Your task to perform on an android device: empty trash in google photos Image 0: 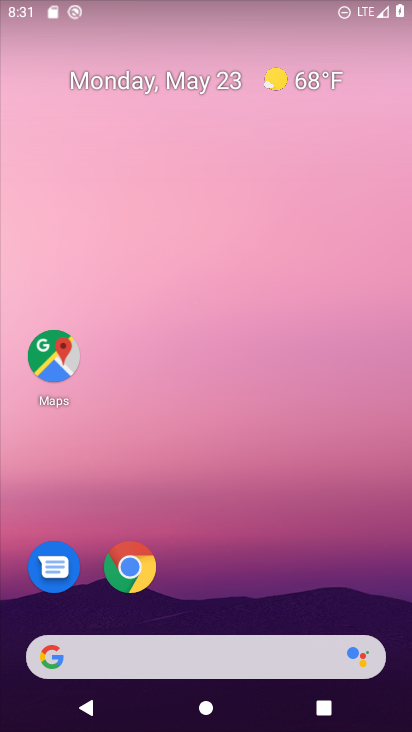
Step 0: drag from (205, 499) to (299, 57)
Your task to perform on an android device: empty trash in google photos Image 1: 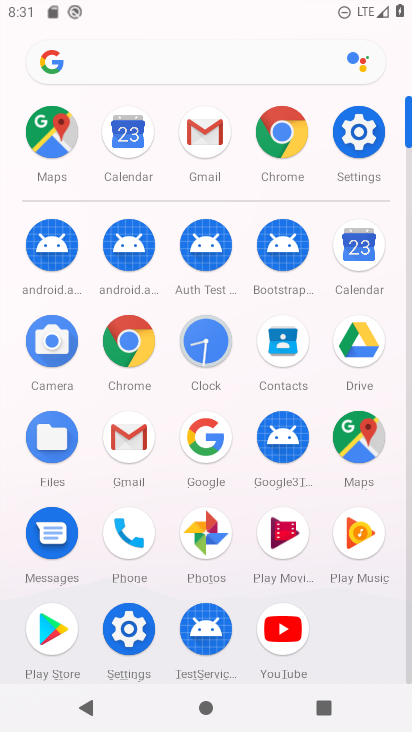
Step 1: click (200, 514)
Your task to perform on an android device: empty trash in google photos Image 2: 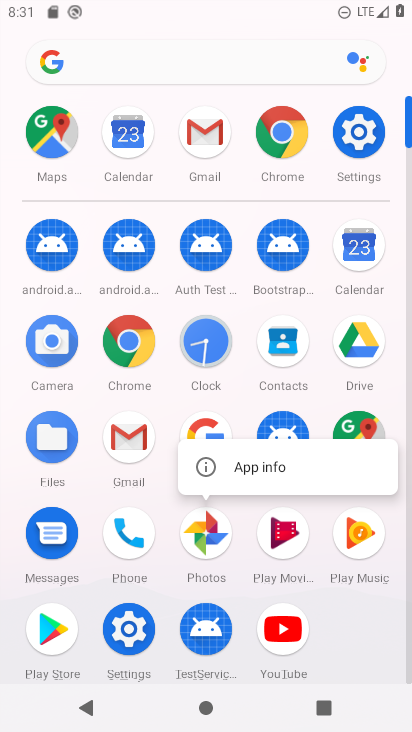
Step 2: click (231, 469)
Your task to perform on an android device: empty trash in google photos Image 3: 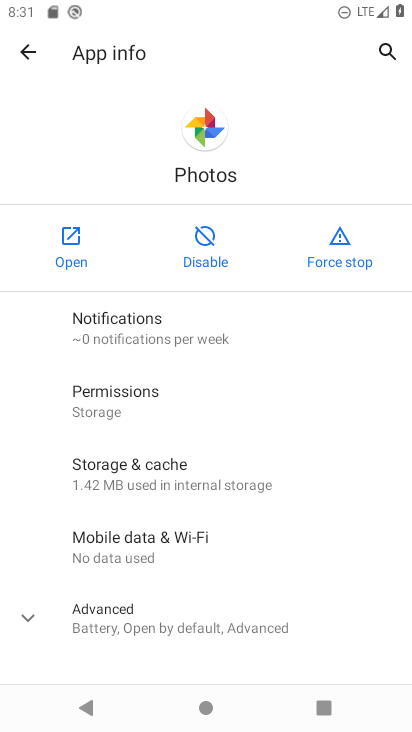
Step 3: click (64, 249)
Your task to perform on an android device: empty trash in google photos Image 4: 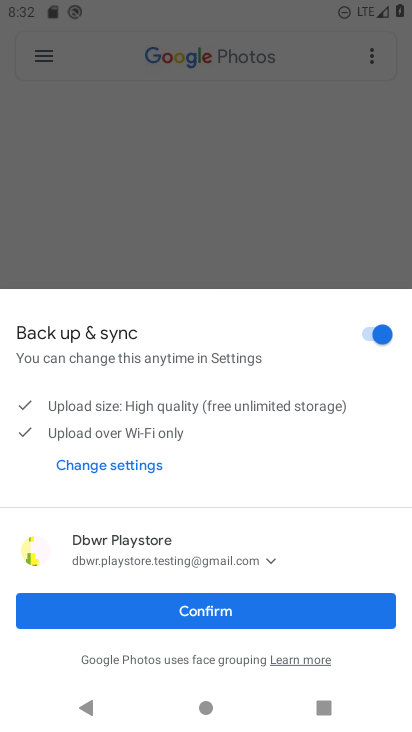
Step 4: drag from (307, 294) to (346, 42)
Your task to perform on an android device: empty trash in google photos Image 5: 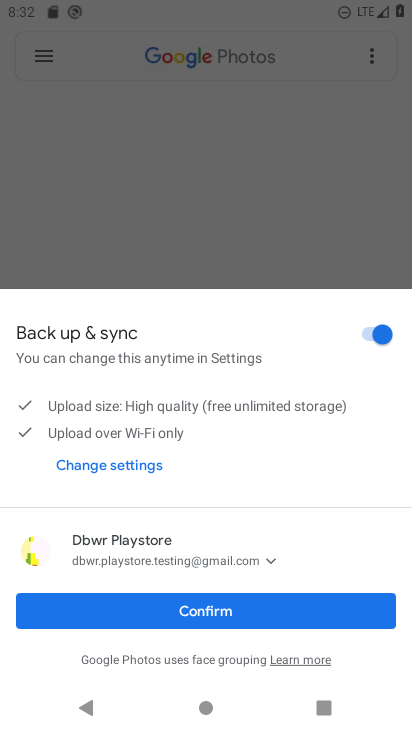
Step 5: click (278, 619)
Your task to perform on an android device: empty trash in google photos Image 6: 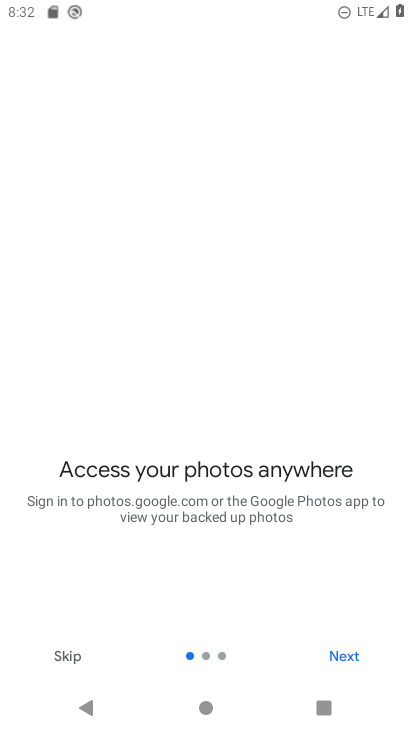
Step 6: click (39, 58)
Your task to perform on an android device: empty trash in google photos Image 7: 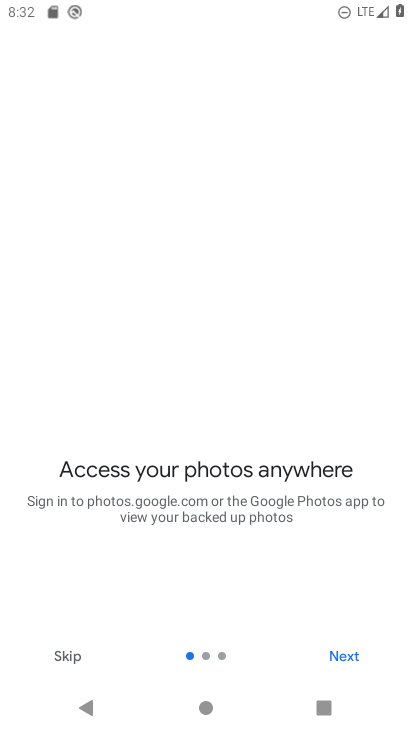
Step 7: click (62, 652)
Your task to perform on an android device: empty trash in google photos Image 8: 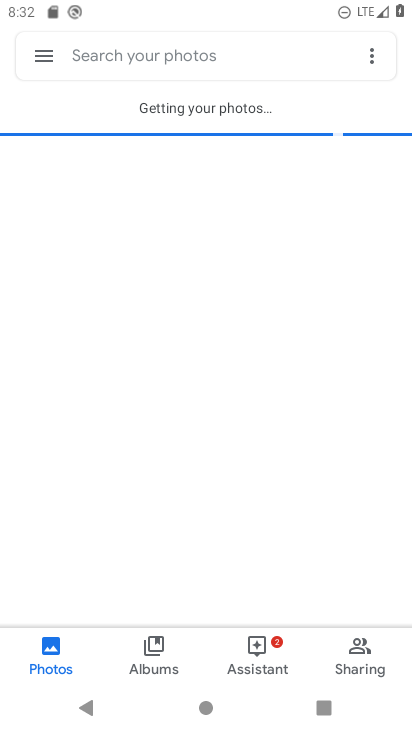
Step 8: click (55, 70)
Your task to perform on an android device: empty trash in google photos Image 9: 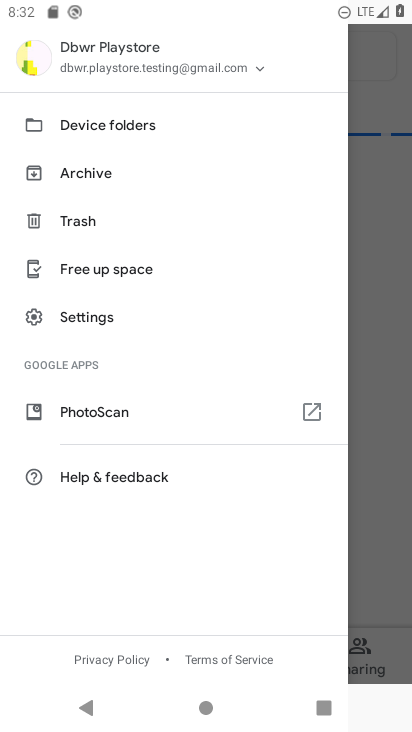
Step 9: click (126, 222)
Your task to perform on an android device: empty trash in google photos Image 10: 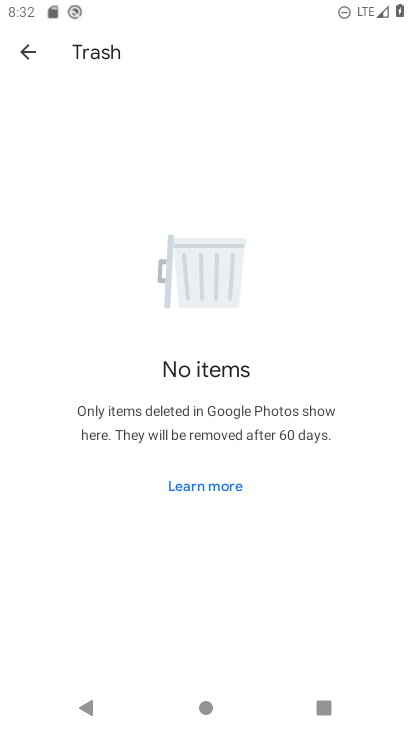
Step 10: task complete